Your task to perform on an android device: Open Wikipedia Image 0: 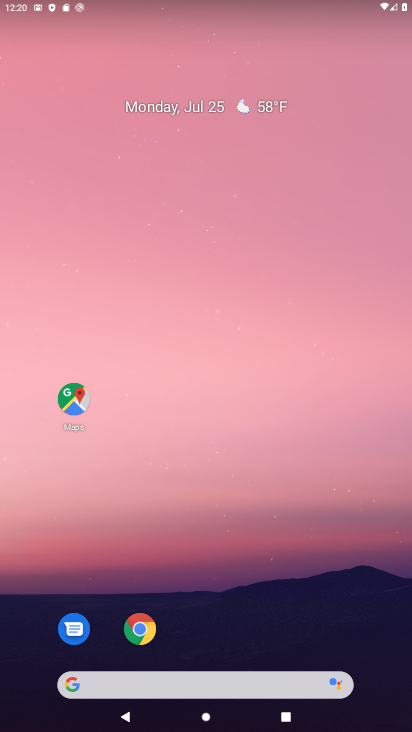
Step 0: drag from (206, 671) to (344, 285)
Your task to perform on an android device: Open Wikipedia Image 1: 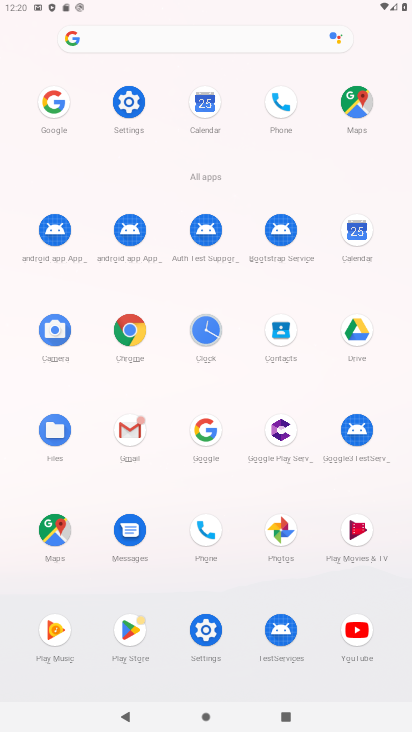
Step 1: click (132, 347)
Your task to perform on an android device: Open Wikipedia Image 2: 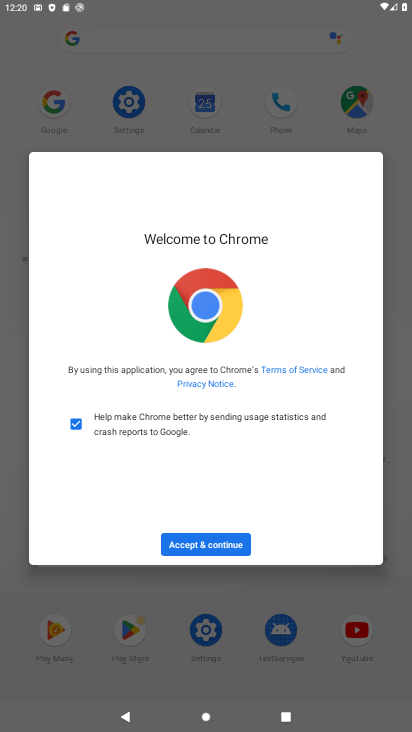
Step 2: click (219, 543)
Your task to perform on an android device: Open Wikipedia Image 3: 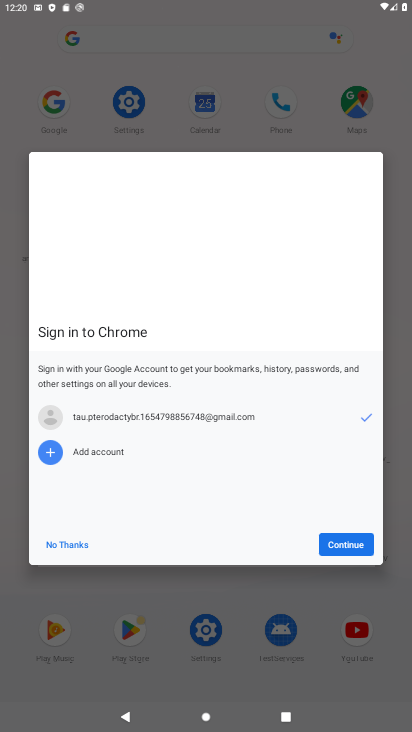
Step 3: click (353, 543)
Your task to perform on an android device: Open Wikipedia Image 4: 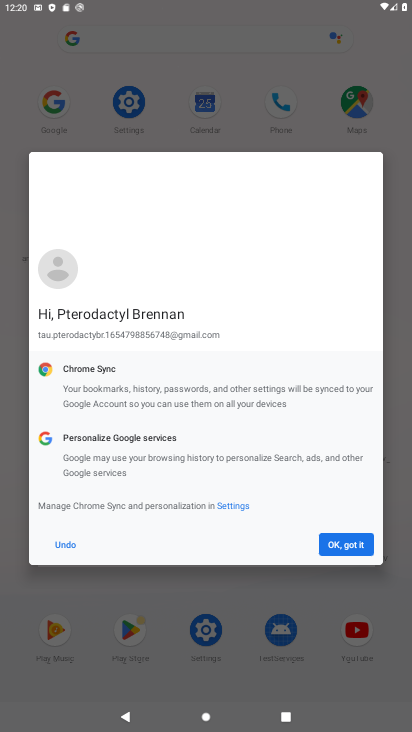
Step 4: click (352, 543)
Your task to perform on an android device: Open Wikipedia Image 5: 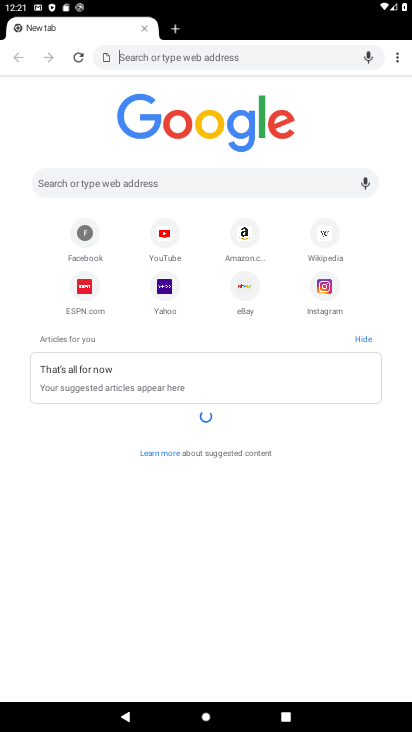
Step 5: click (318, 237)
Your task to perform on an android device: Open Wikipedia Image 6: 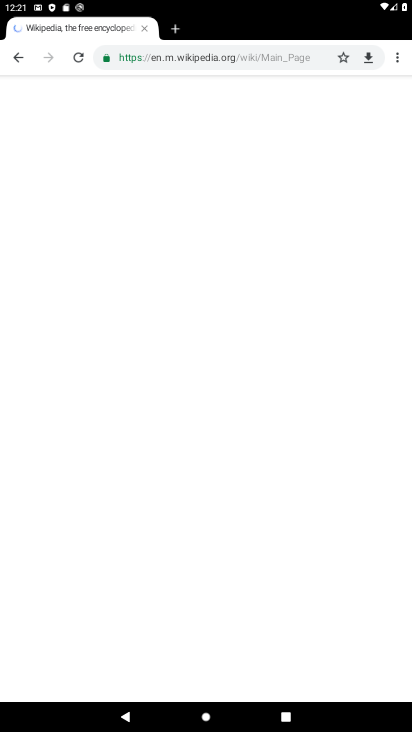
Step 6: task complete